Your task to perform on an android device: Show me the alarms in the clock app Image 0: 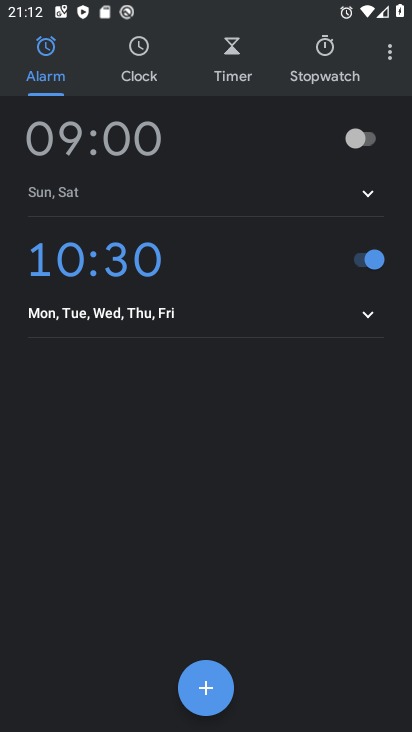
Step 0: click (52, 60)
Your task to perform on an android device: Show me the alarms in the clock app Image 1: 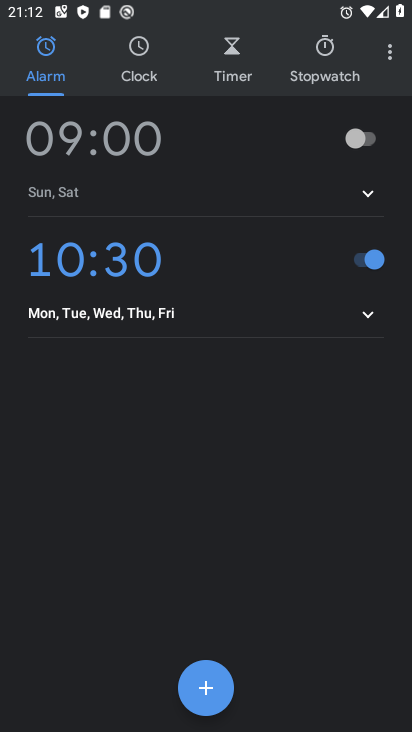
Step 1: task complete